Your task to perform on an android device: change keyboard looks Image 0: 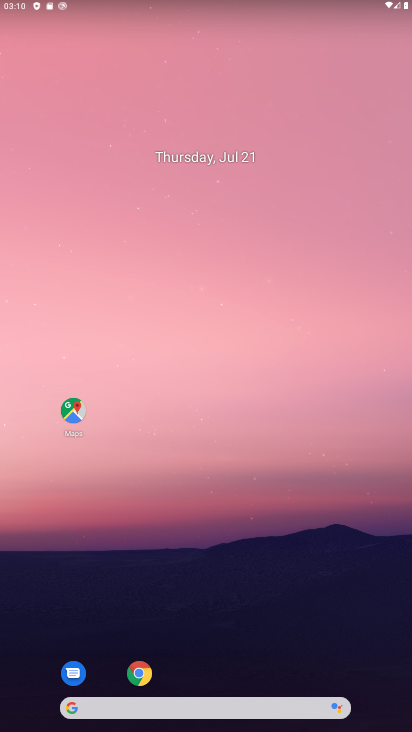
Step 0: drag from (296, 571) to (241, 58)
Your task to perform on an android device: change keyboard looks Image 1: 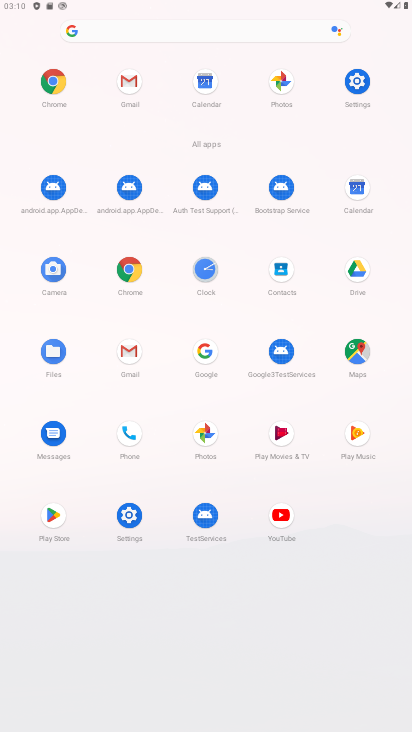
Step 1: click (358, 73)
Your task to perform on an android device: change keyboard looks Image 2: 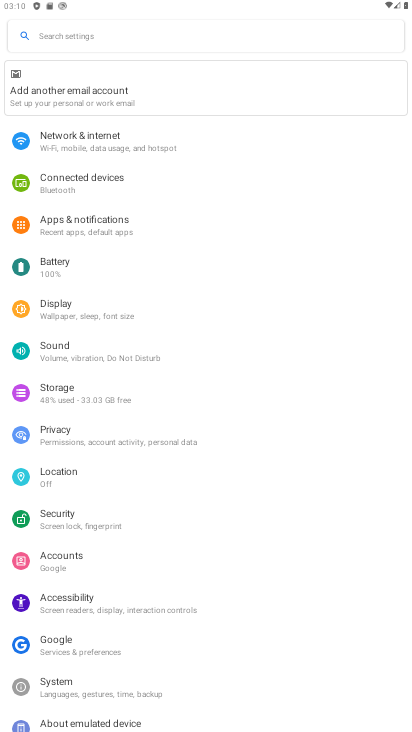
Step 2: click (124, 690)
Your task to perform on an android device: change keyboard looks Image 3: 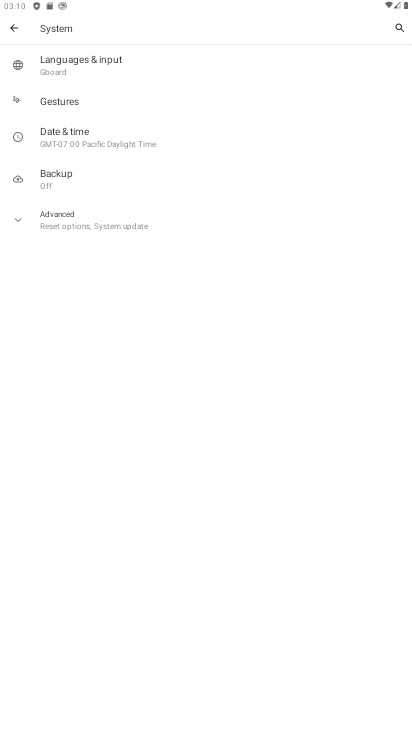
Step 3: click (74, 65)
Your task to perform on an android device: change keyboard looks Image 4: 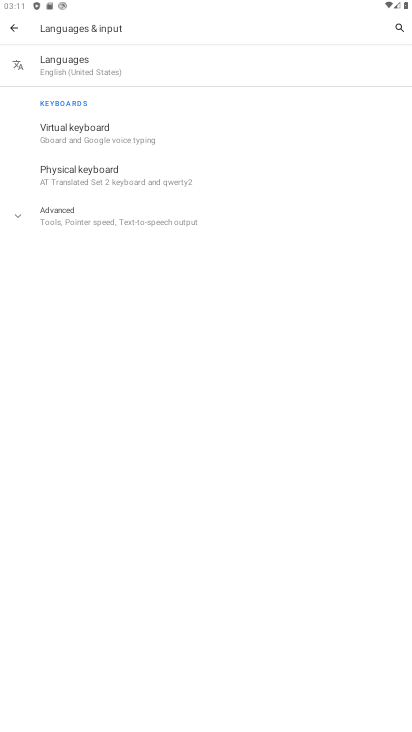
Step 4: click (82, 147)
Your task to perform on an android device: change keyboard looks Image 5: 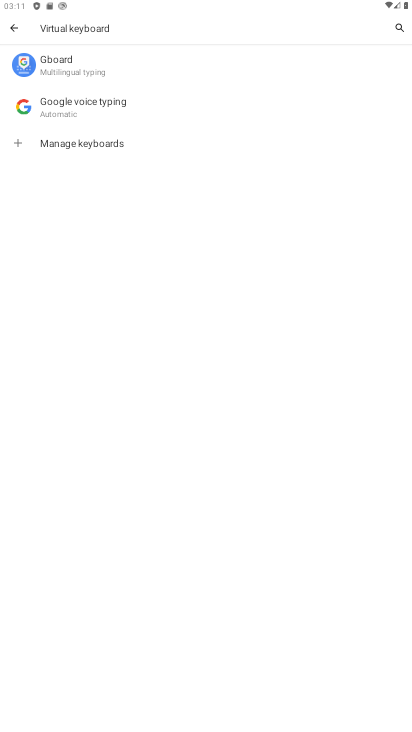
Step 5: click (72, 76)
Your task to perform on an android device: change keyboard looks Image 6: 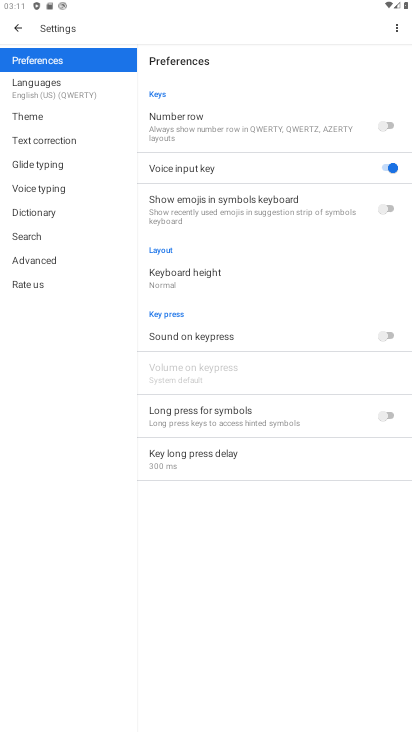
Step 6: click (66, 126)
Your task to perform on an android device: change keyboard looks Image 7: 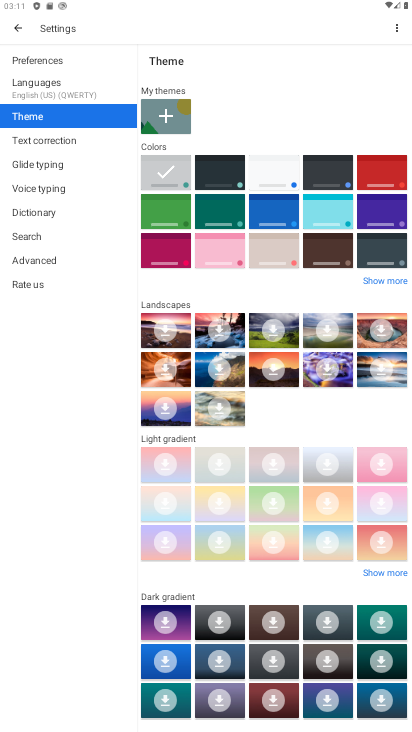
Step 7: click (289, 168)
Your task to perform on an android device: change keyboard looks Image 8: 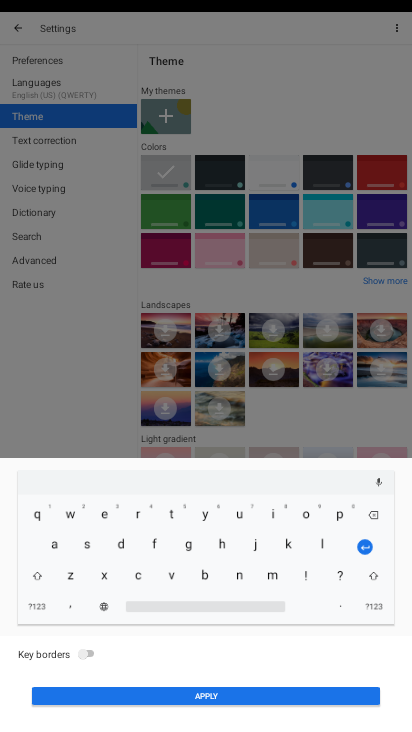
Step 8: click (298, 697)
Your task to perform on an android device: change keyboard looks Image 9: 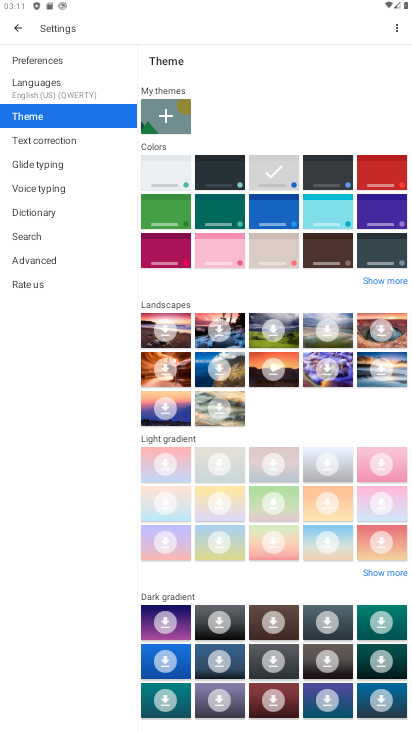
Step 9: task complete